Your task to perform on an android device: toggle location history Image 0: 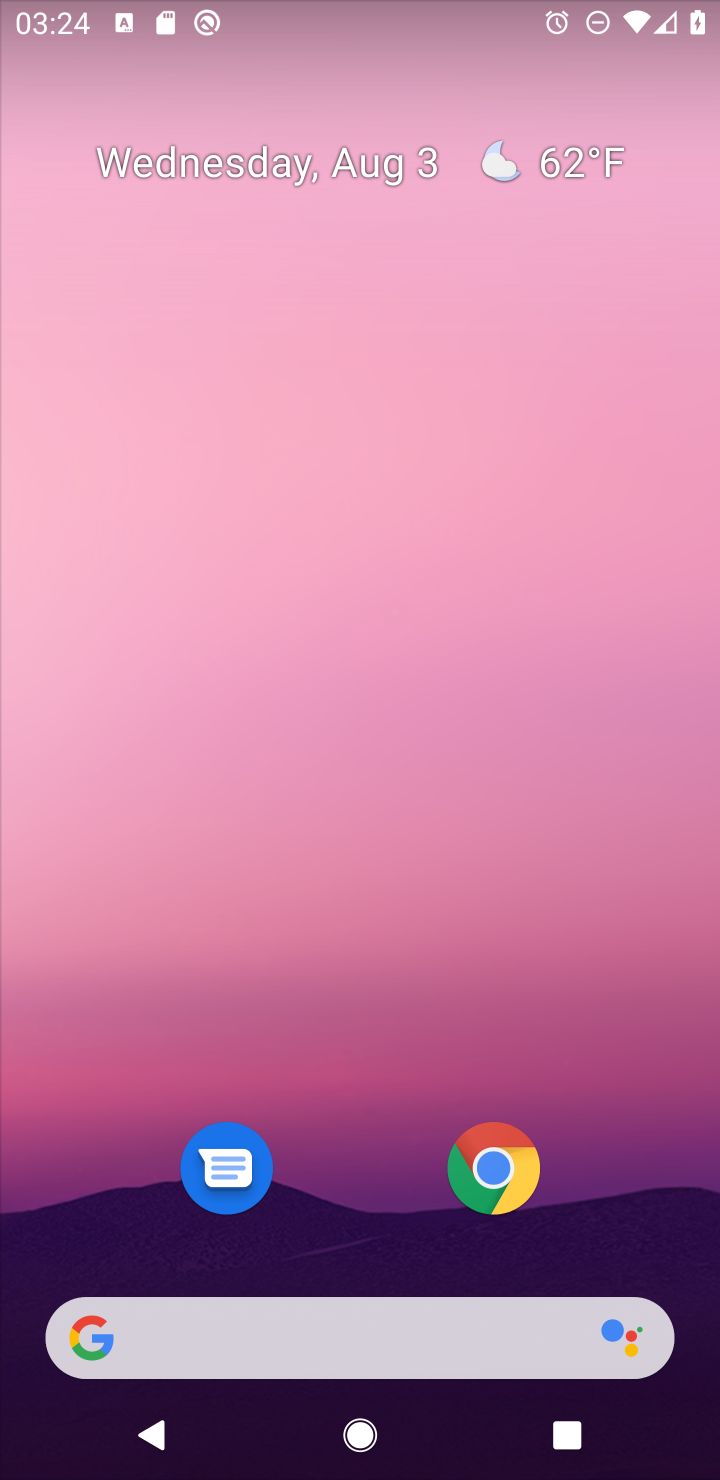
Step 0: drag from (668, 1255) to (553, 225)
Your task to perform on an android device: toggle location history Image 1: 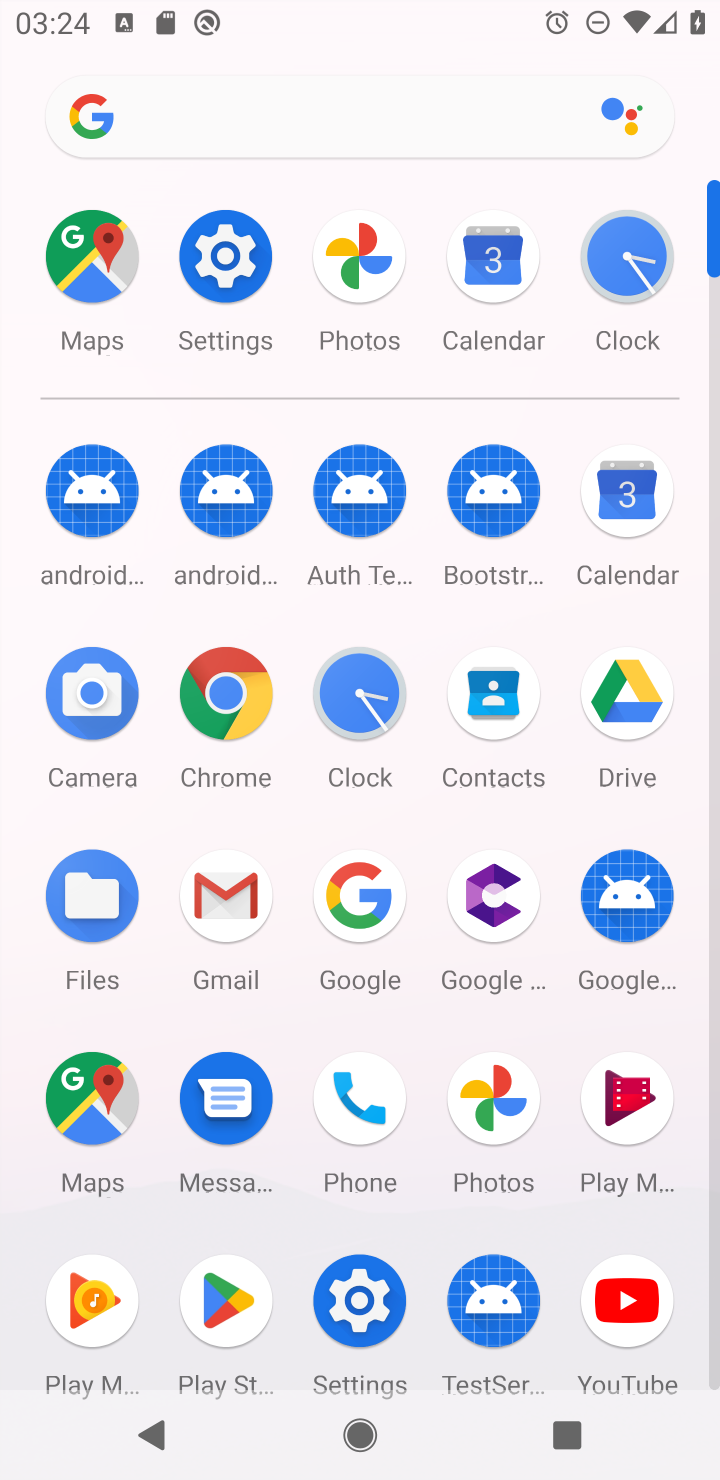
Step 1: click (91, 1100)
Your task to perform on an android device: toggle location history Image 2: 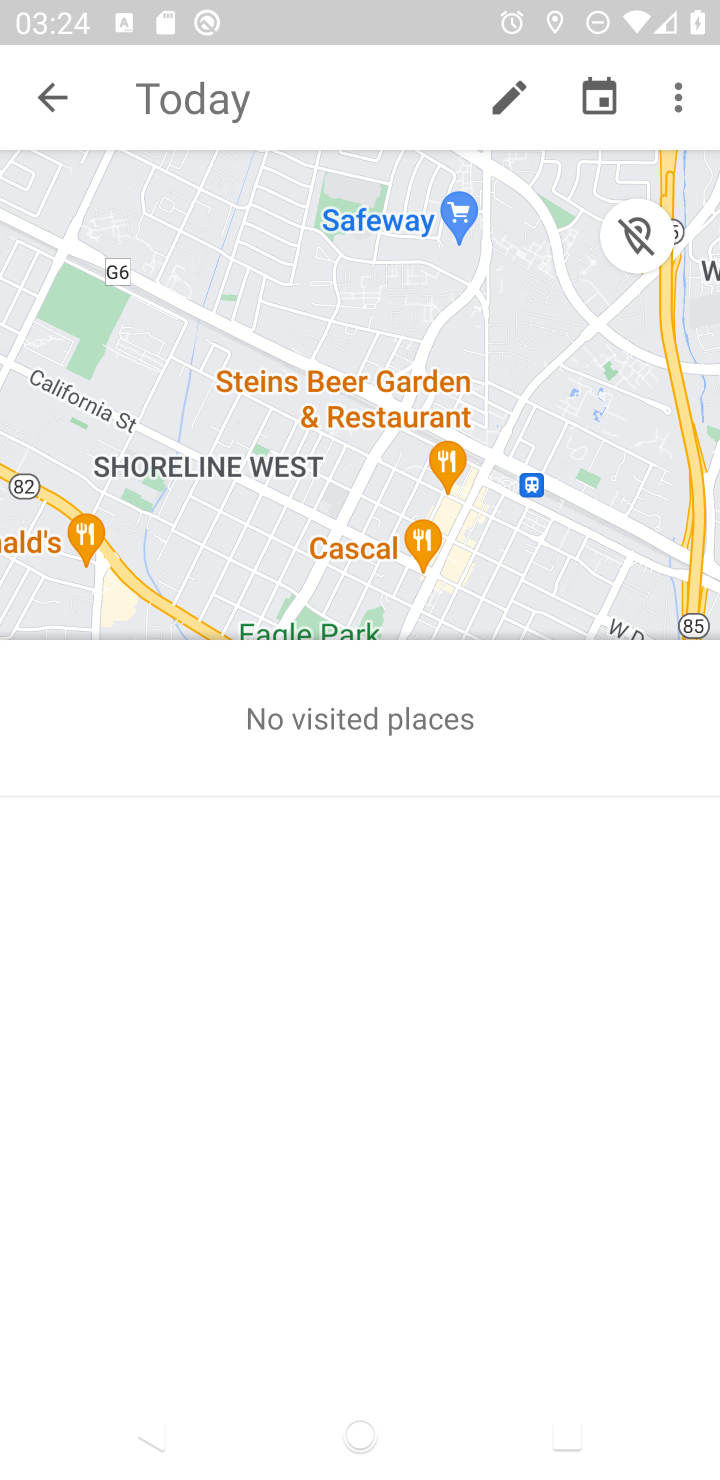
Step 2: press back button
Your task to perform on an android device: toggle location history Image 3: 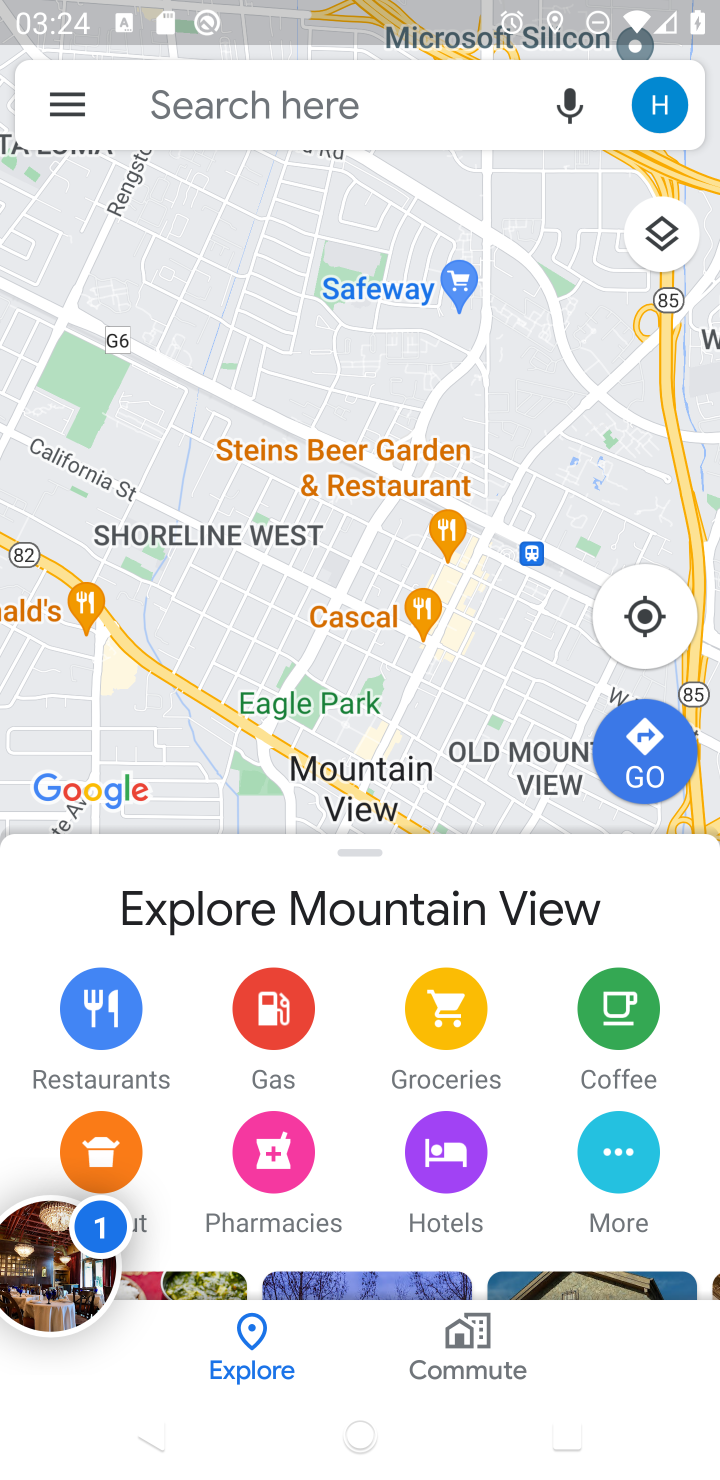
Step 3: click (68, 106)
Your task to perform on an android device: toggle location history Image 4: 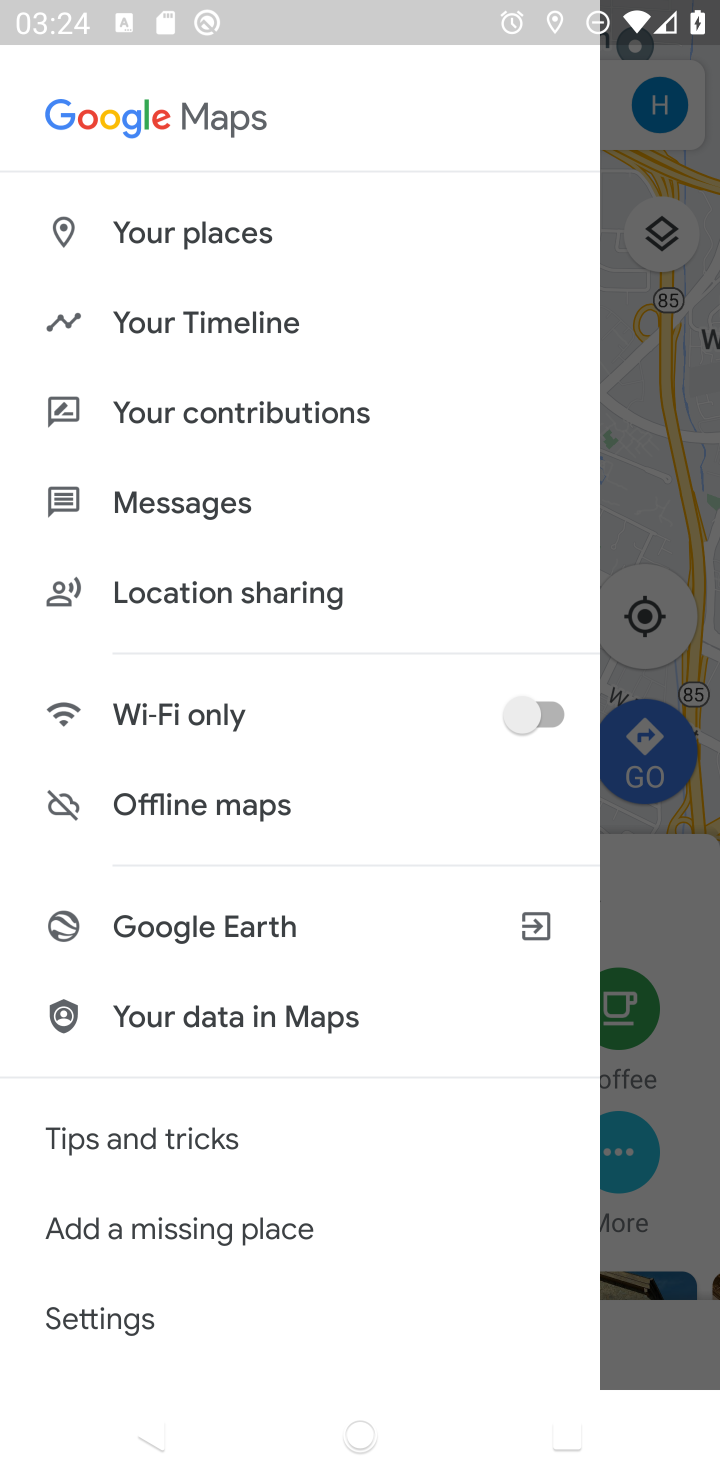
Step 4: drag from (338, 1314) to (375, 695)
Your task to perform on an android device: toggle location history Image 5: 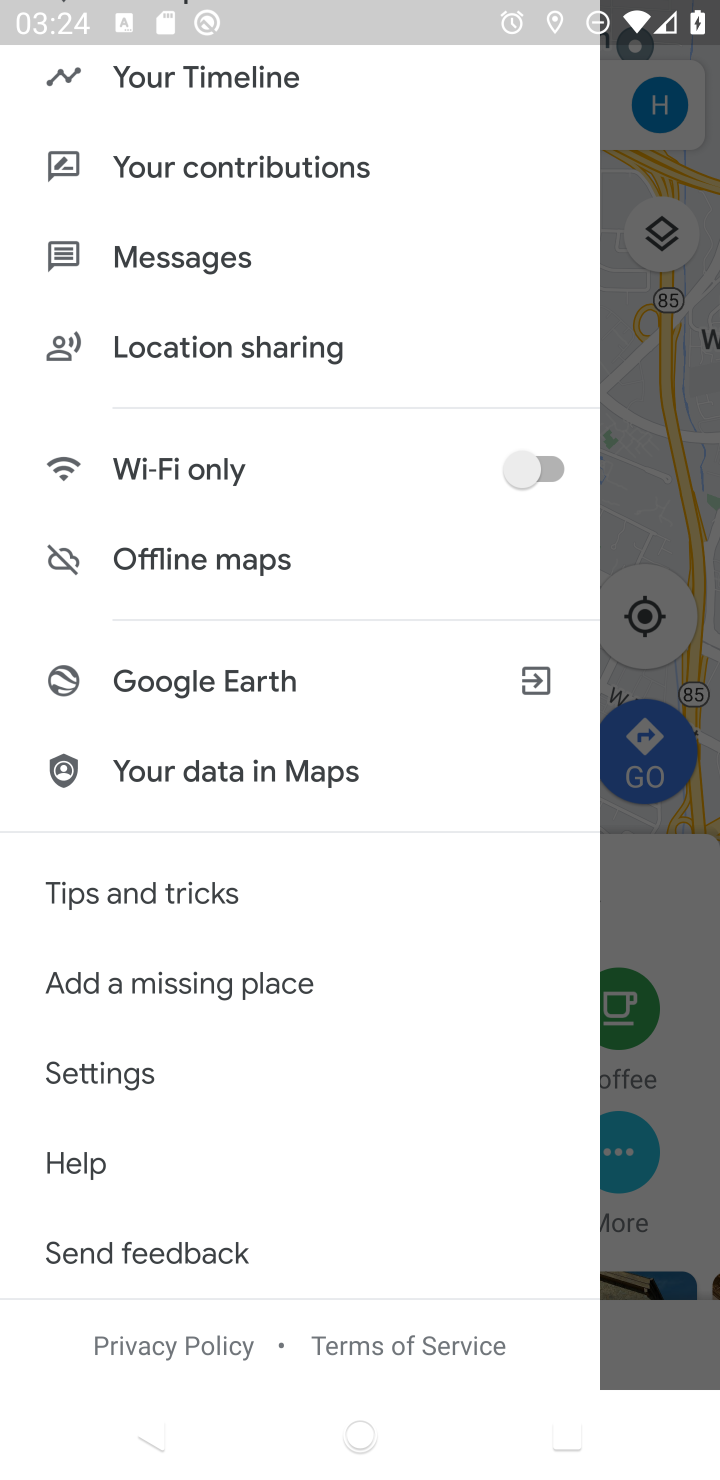
Step 5: click (94, 1064)
Your task to perform on an android device: toggle location history Image 6: 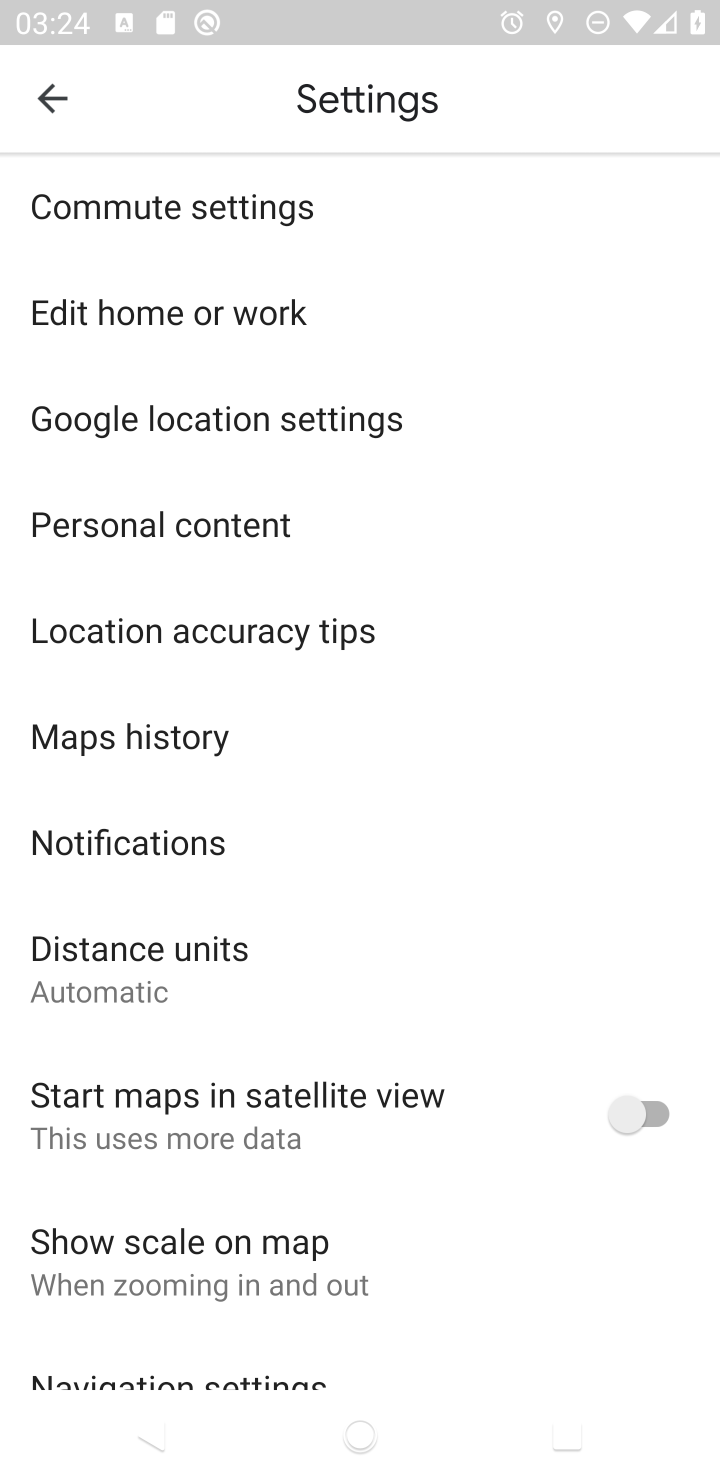
Step 6: click (144, 532)
Your task to perform on an android device: toggle location history Image 7: 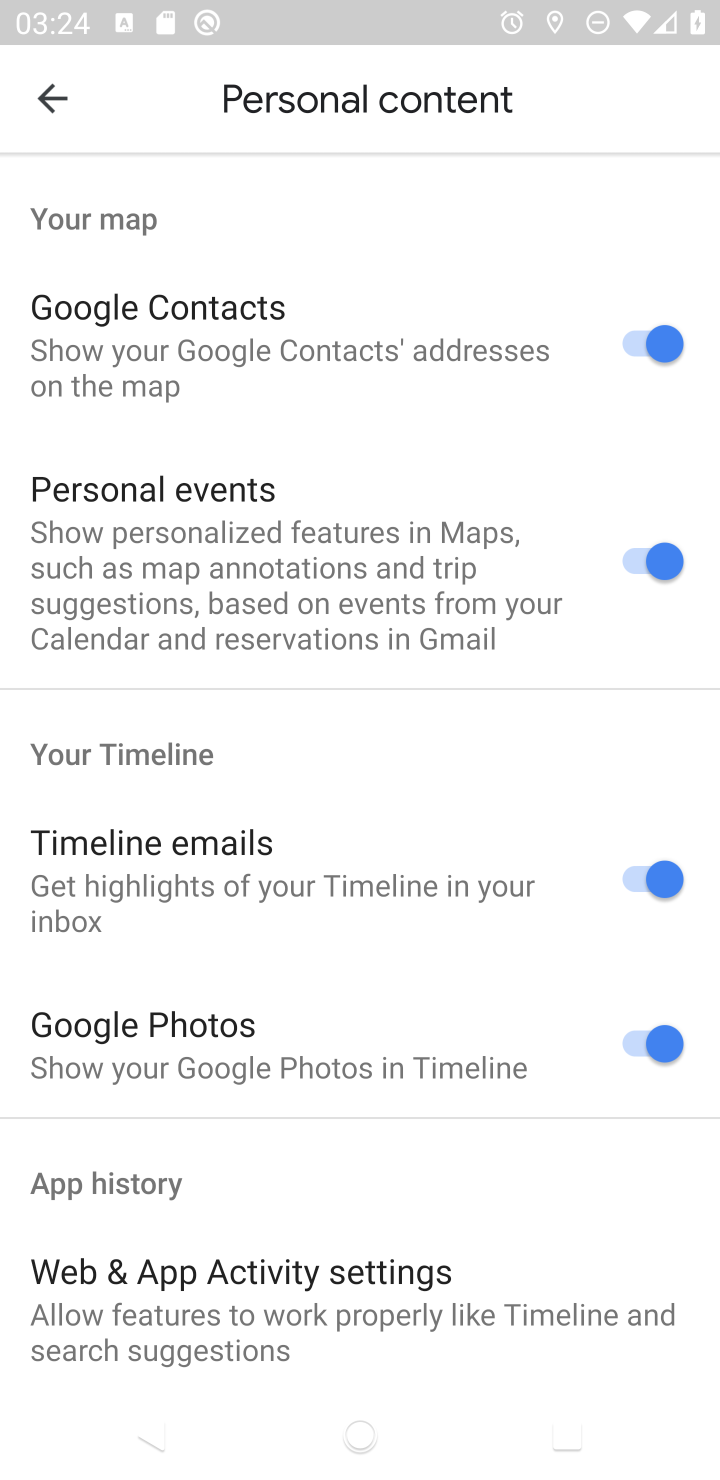
Step 7: drag from (486, 1227) to (489, 463)
Your task to perform on an android device: toggle location history Image 8: 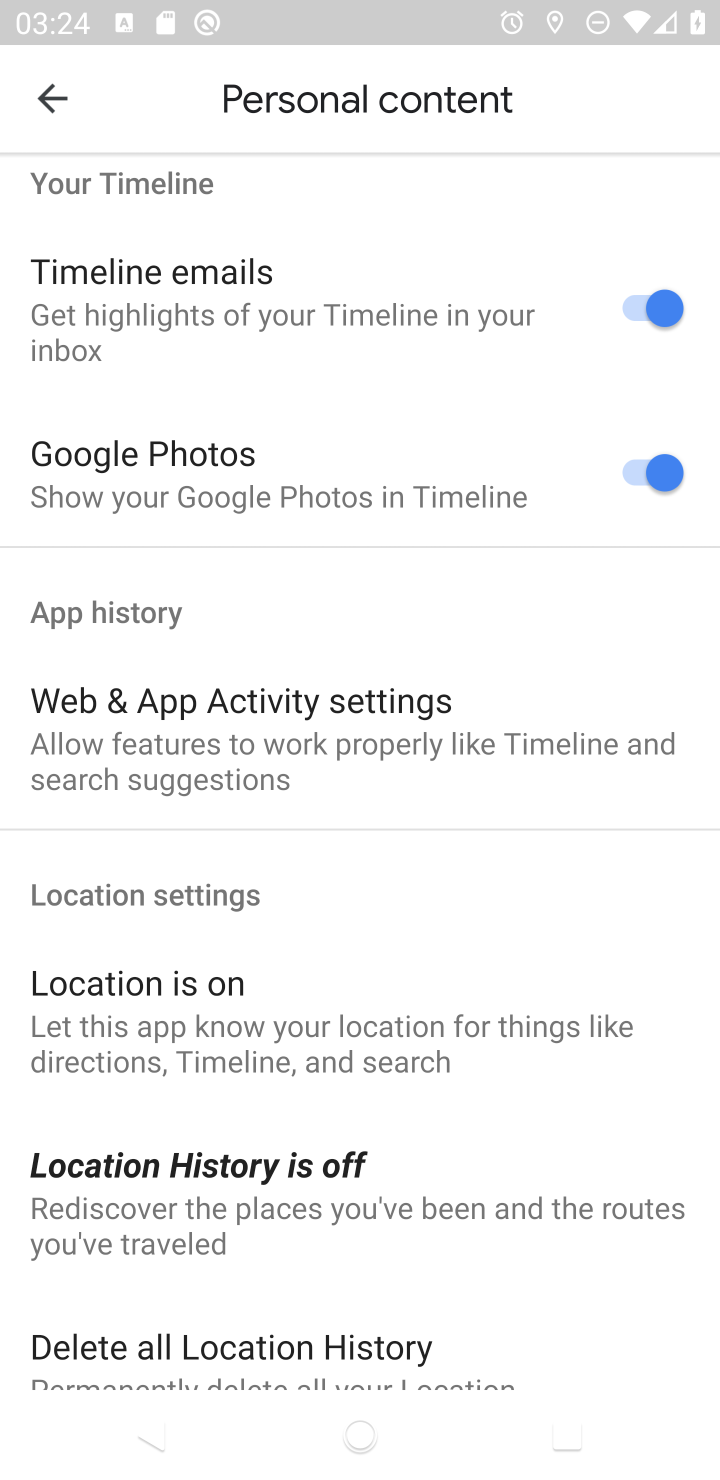
Step 8: click (116, 1189)
Your task to perform on an android device: toggle location history Image 9: 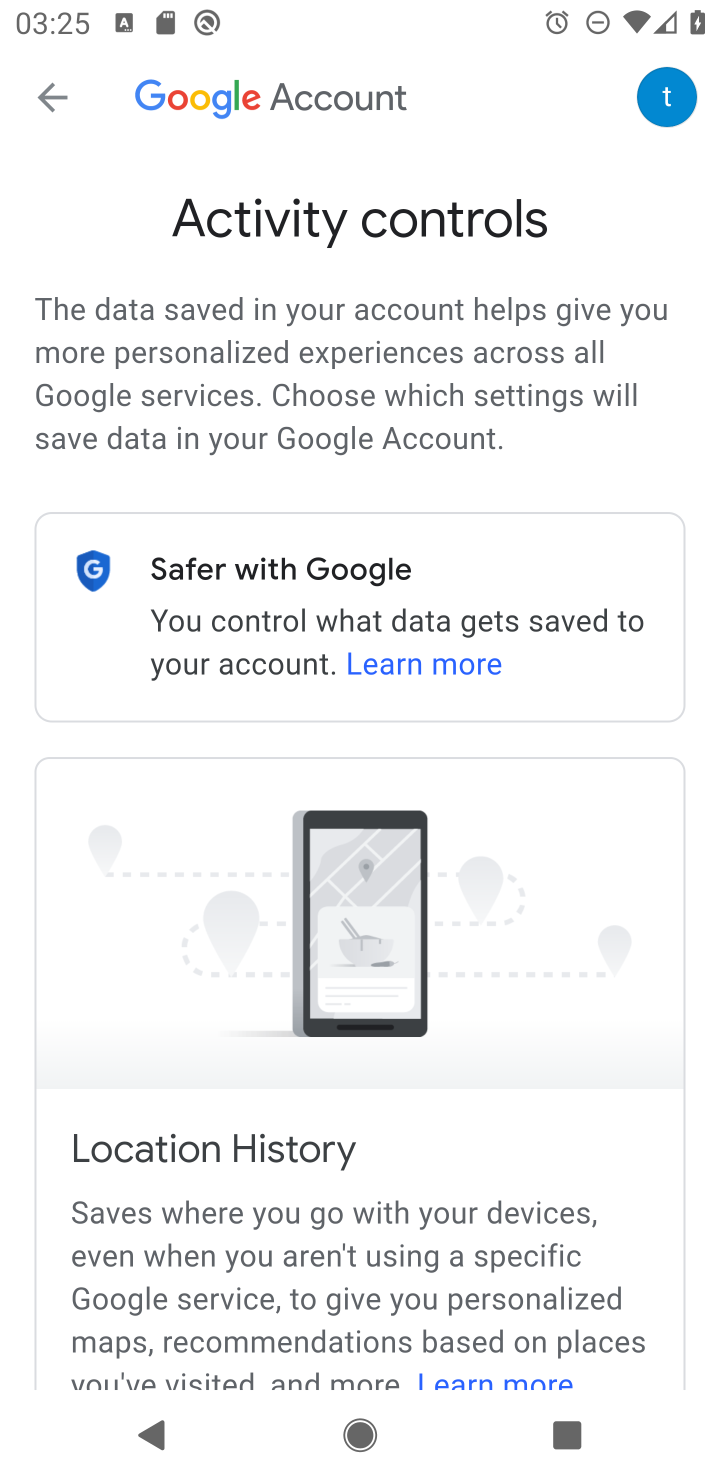
Step 9: drag from (592, 1130) to (516, 325)
Your task to perform on an android device: toggle location history Image 10: 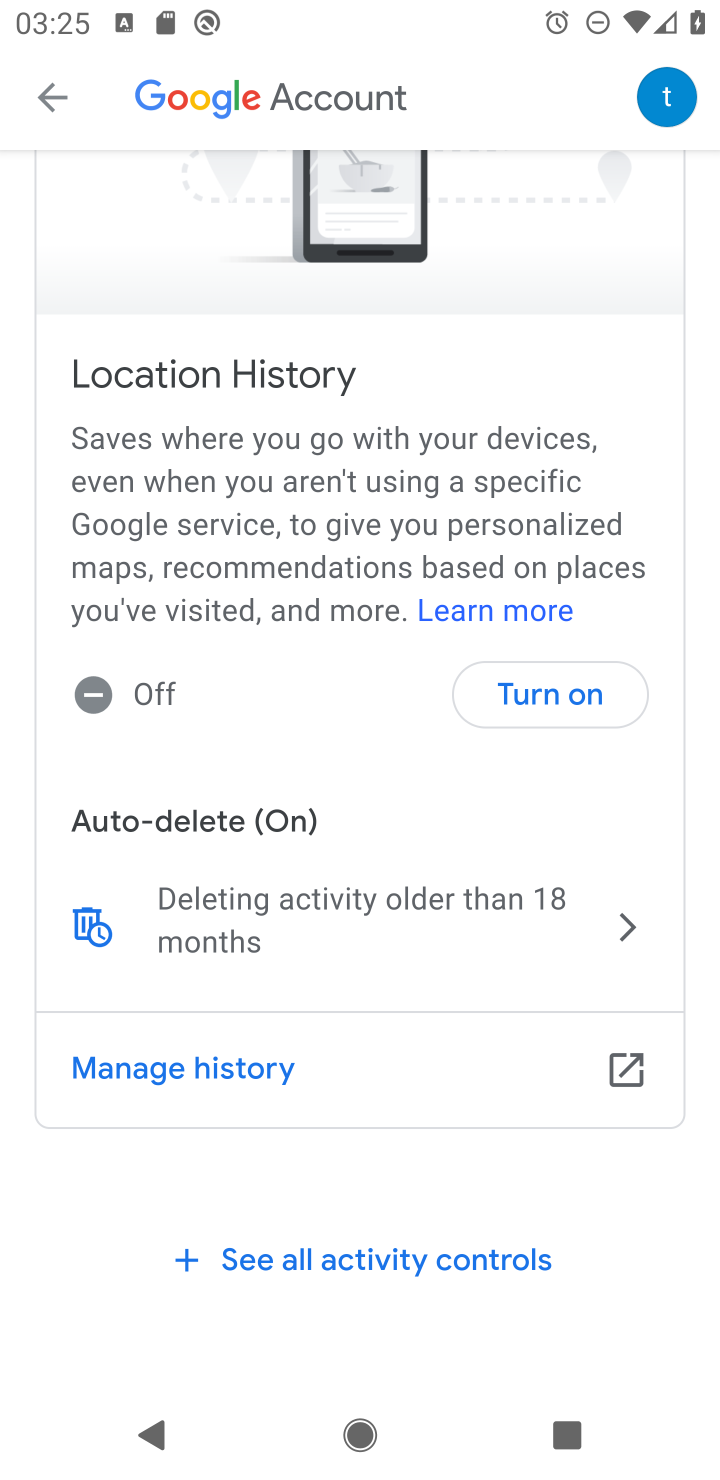
Step 10: click (557, 690)
Your task to perform on an android device: toggle location history Image 11: 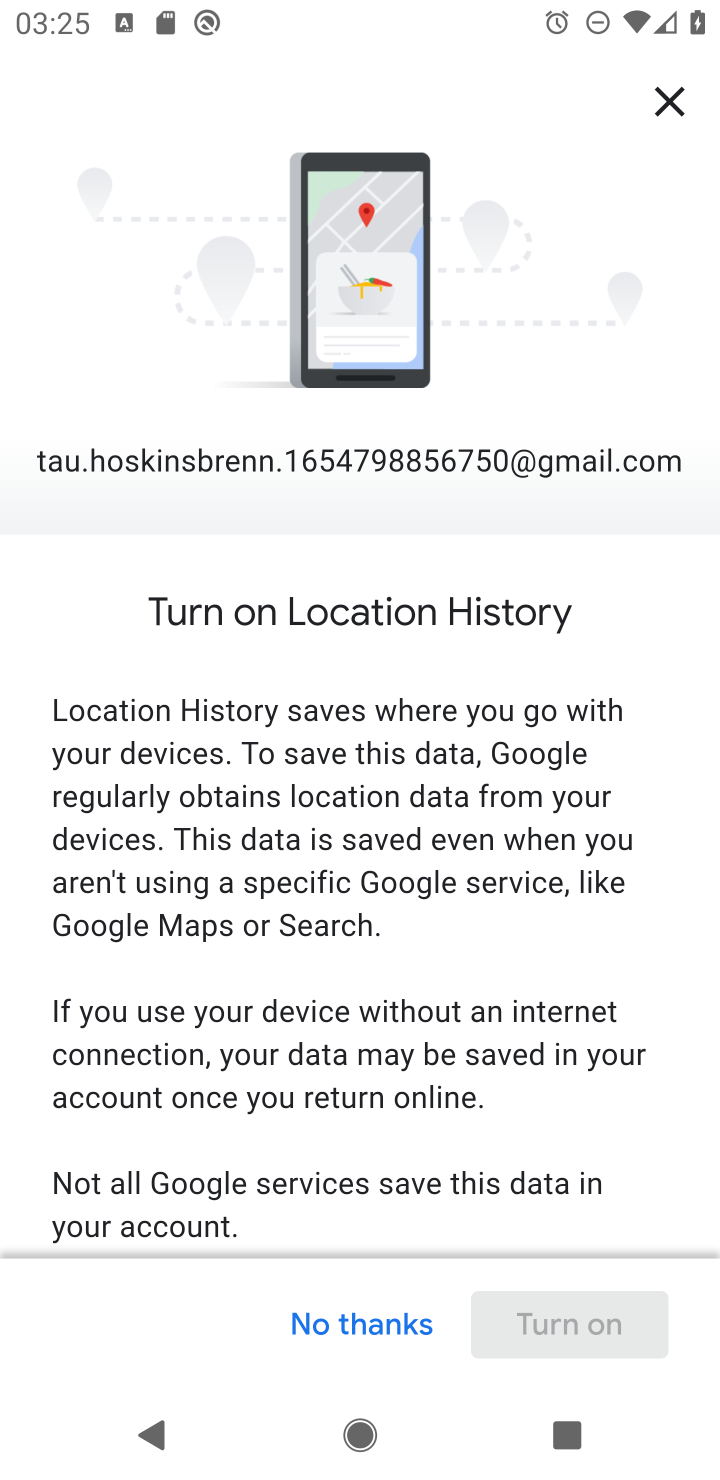
Step 11: drag from (523, 1162) to (440, 439)
Your task to perform on an android device: toggle location history Image 12: 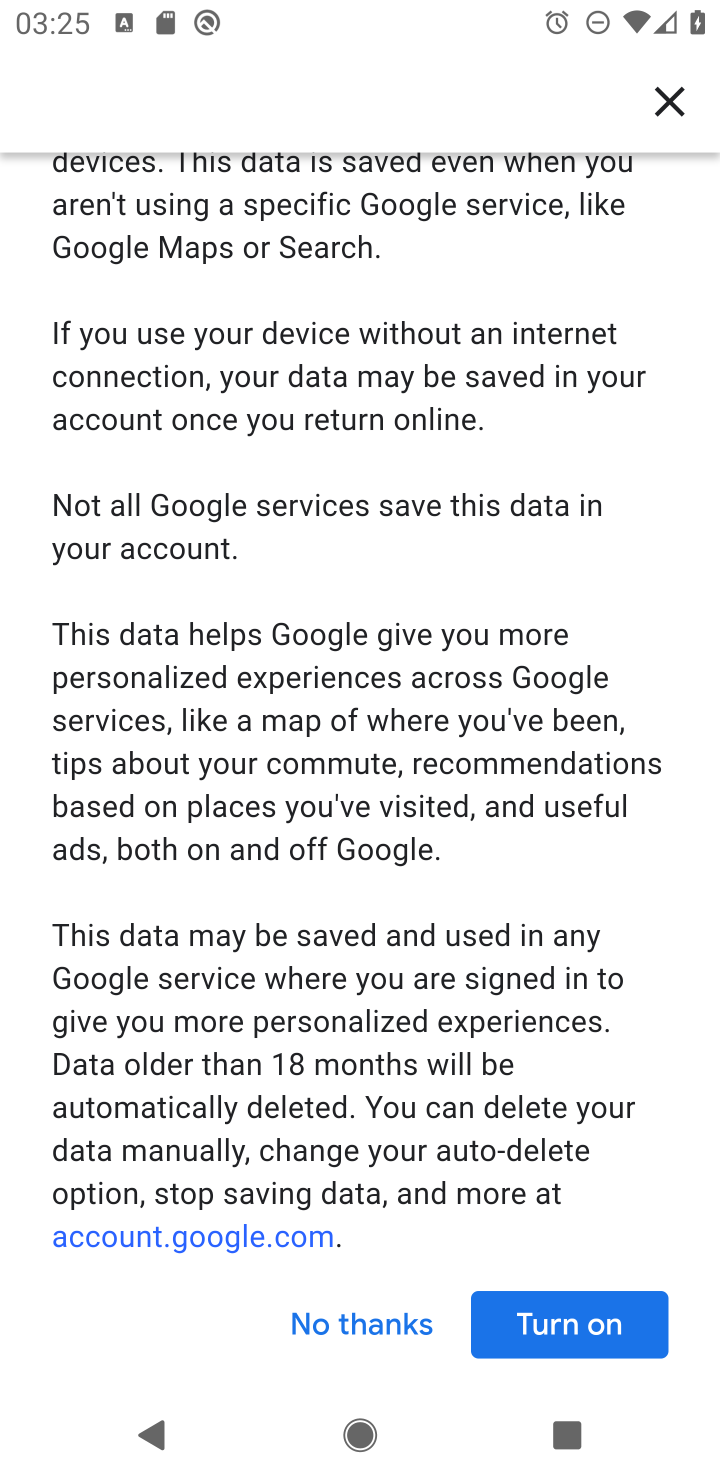
Step 12: click (579, 1326)
Your task to perform on an android device: toggle location history Image 13: 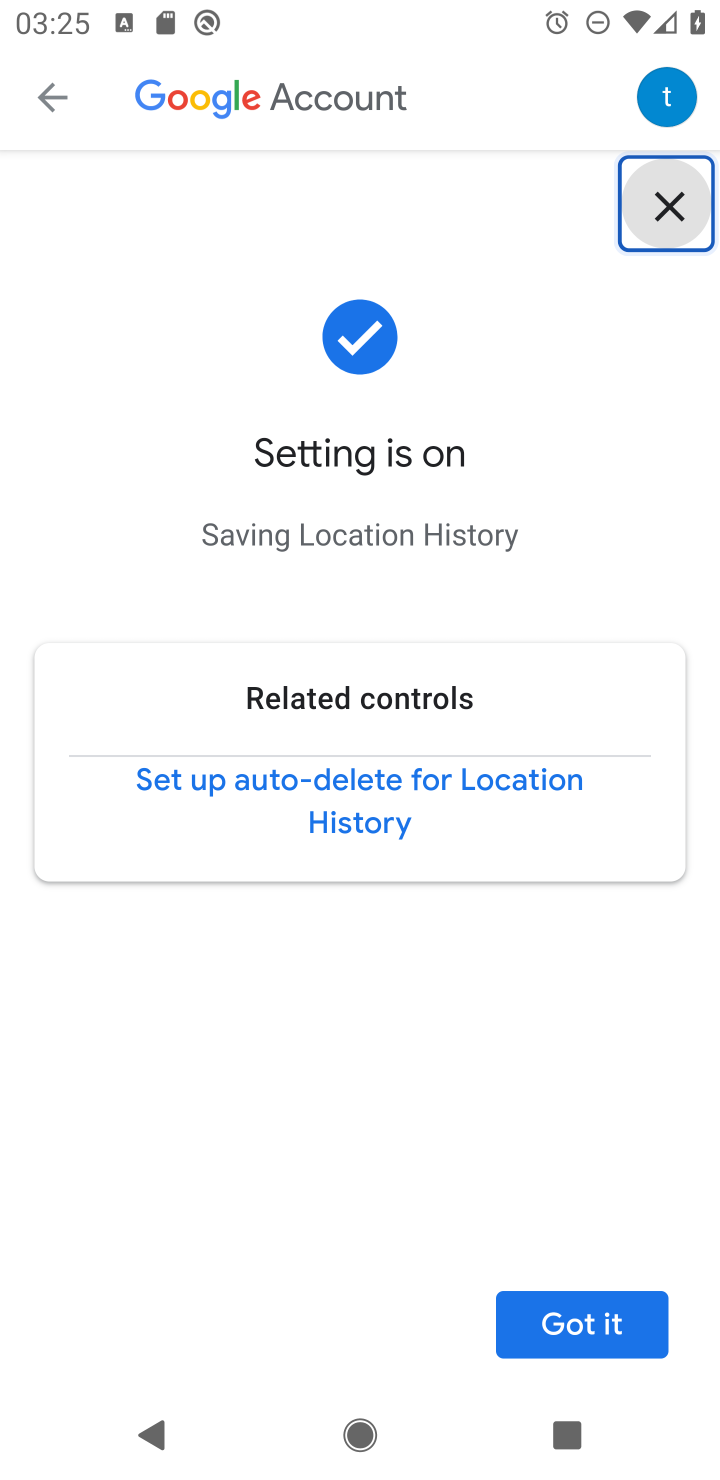
Step 13: click (576, 1319)
Your task to perform on an android device: toggle location history Image 14: 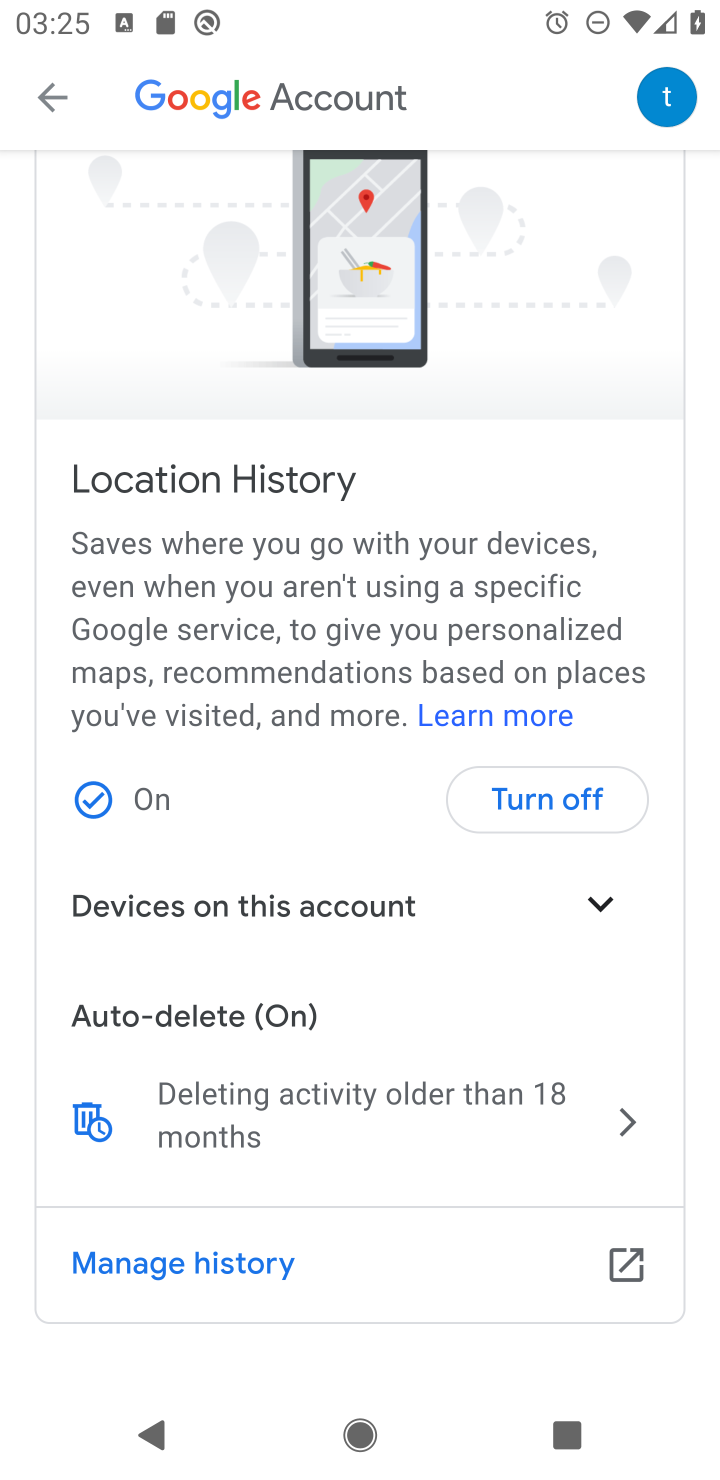
Step 14: task complete